Your task to perform on an android device: Go to wifi settings Image 0: 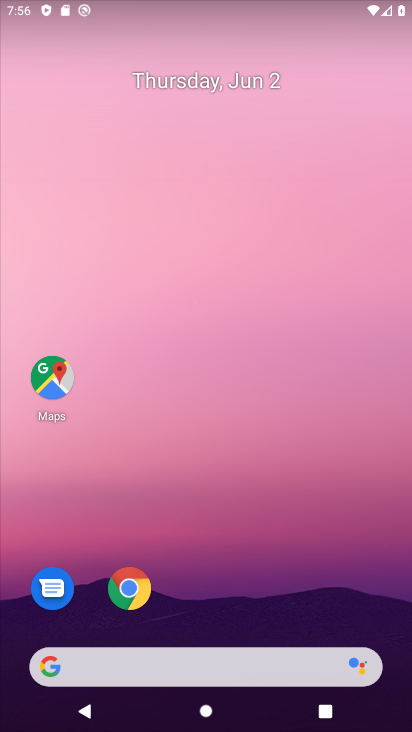
Step 0: drag from (225, 728) to (160, 38)
Your task to perform on an android device: Go to wifi settings Image 1: 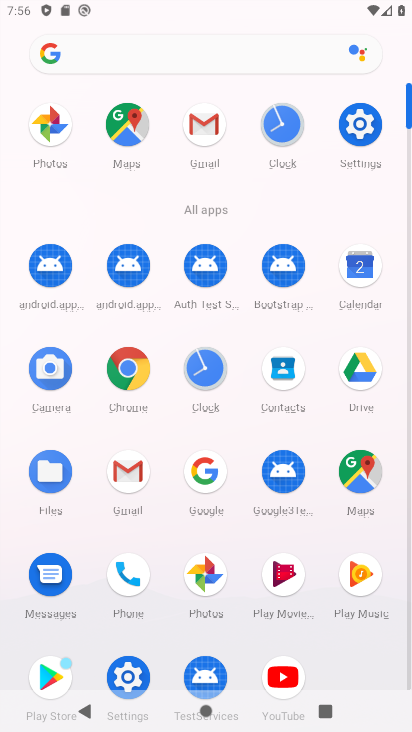
Step 1: click (367, 123)
Your task to perform on an android device: Go to wifi settings Image 2: 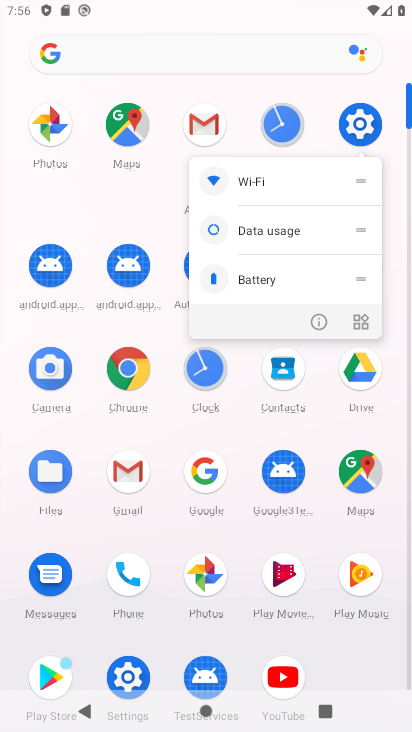
Step 2: click (355, 131)
Your task to perform on an android device: Go to wifi settings Image 3: 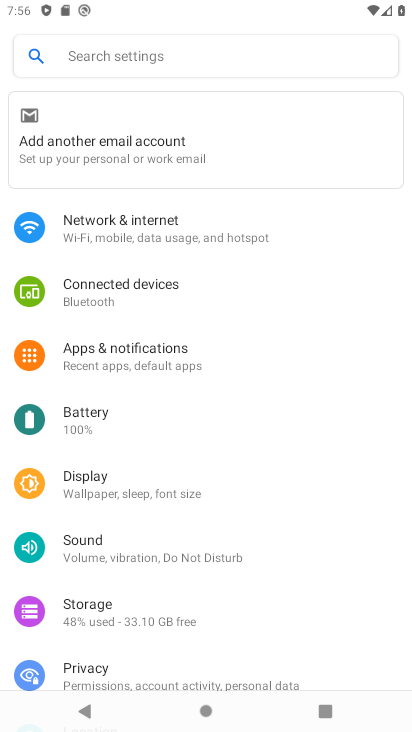
Step 3: click (121, 229)
Your task to perform on an android device: Go to wifi settings Image 4: 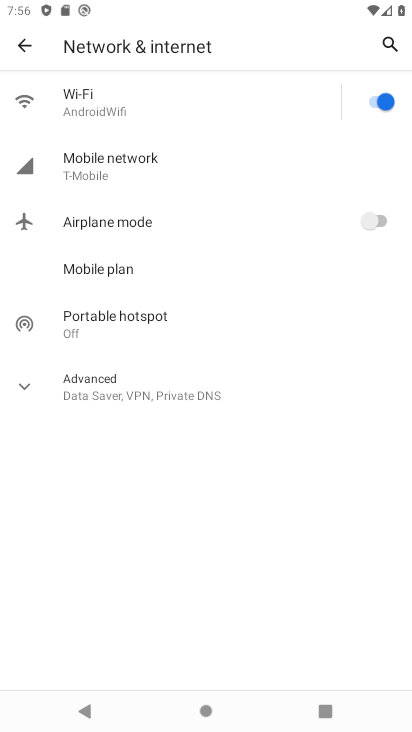
Step 4: click (88, 102)
Your task to perform on an android device: Go to wifi settings Image 5: 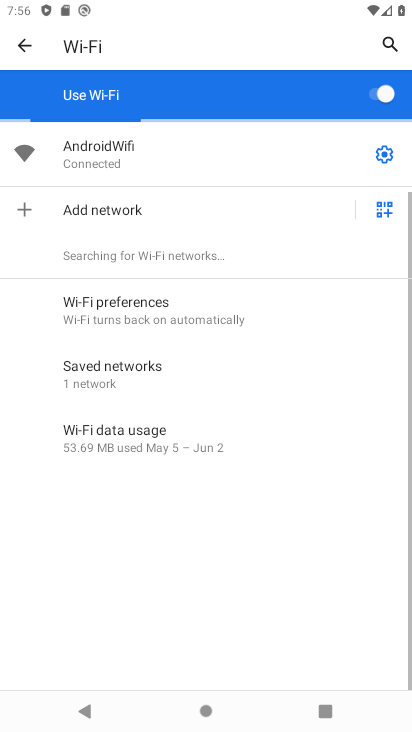
Step 5: task complete